Your task to perform on an android device: change the clock display to show seconds Image 0: 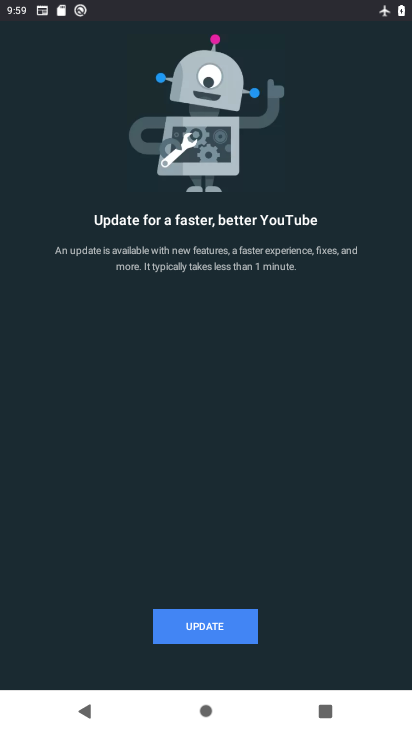
Step 0: press home button
Your task to perform on an android device: change the clock display to show seconds Image 1: 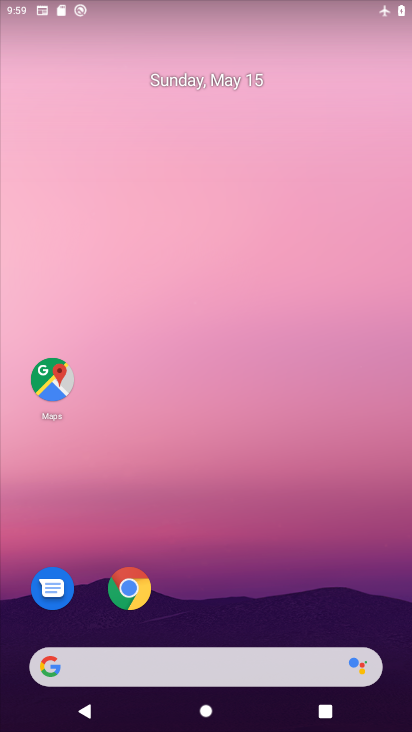
Step 1: drag from (305, 619) to (271, 41)
Your task to perform on an android device: change the clock display to show seconds Image 2: 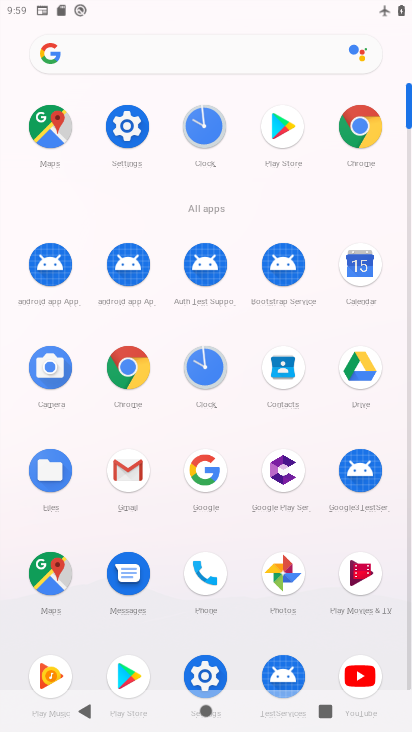
Step 2: click (205, 130)
Your task to perform on an android device: change the clock display to show seconds Image 3: 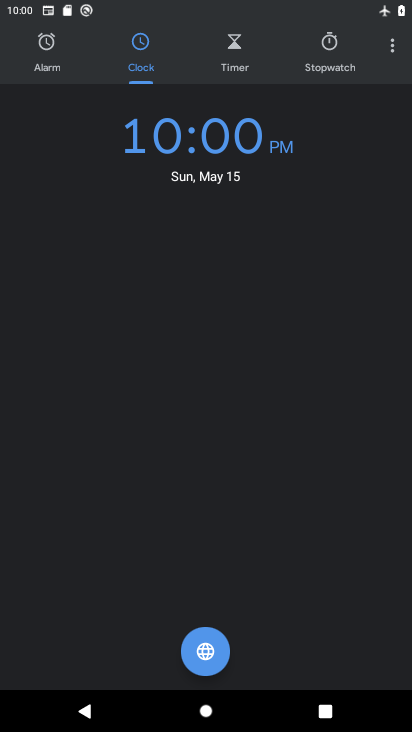
Step 3: click (396, 48)
Your task to perform on an android device: change the clock display to show seconds Image 4: 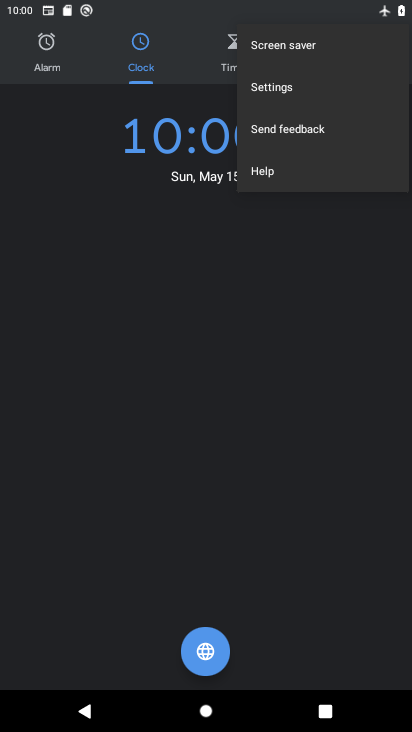
Step 4: click (283, 88)
Your task to perform on an android device: change the clock display to show seconds Image 5: 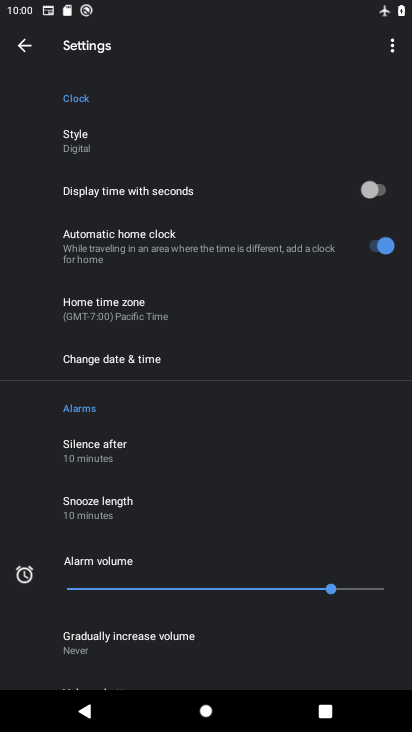
Step 5: click (369, 195)
Your task to perform on an android device: change the clock display to show seconds Image 6: 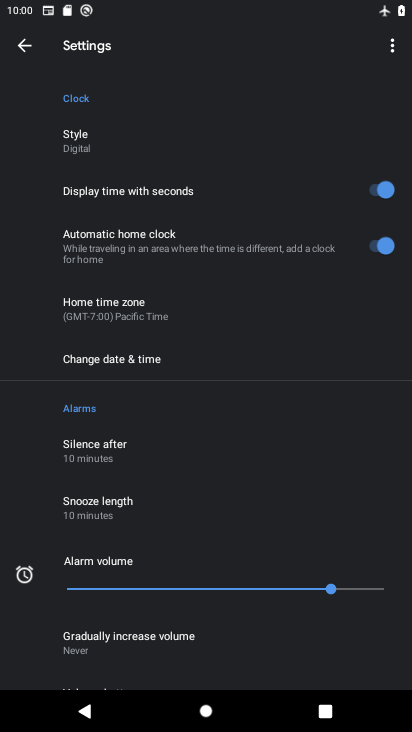
Step 6: task complete